Your task to perform on an android device: turn off picture-in-picture Image 0: 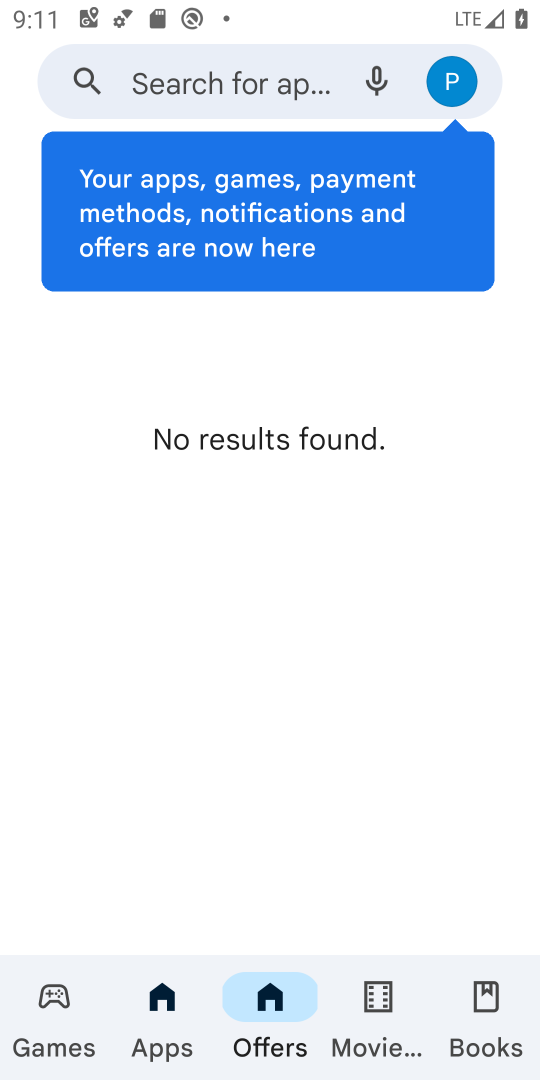
Step 0: press home button
Your task to perform on an android device: turn off picture-in-picture Image 1: 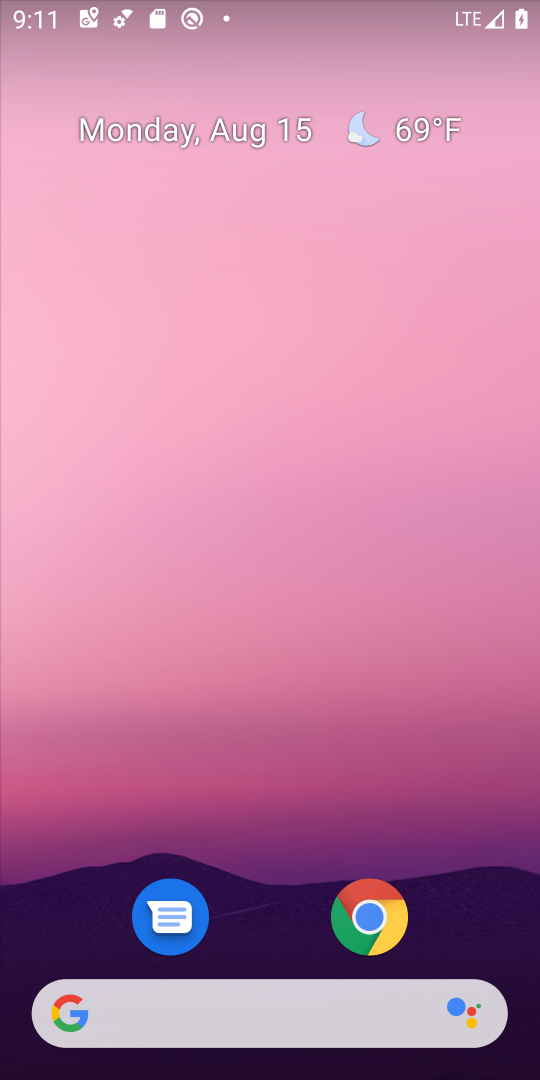
Step 1: click (363, 914)
Your task to perform on an android device: turn off picture-in-picture Image 2: 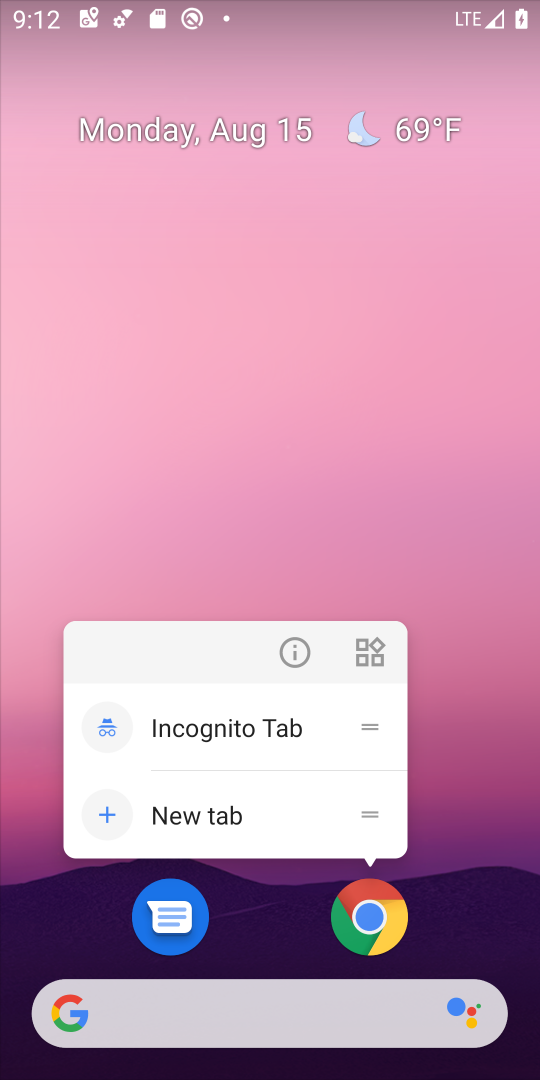
Step 2: click (297, 643)
Your task to perform on an android device: turn off picture-in-picture Image 3: 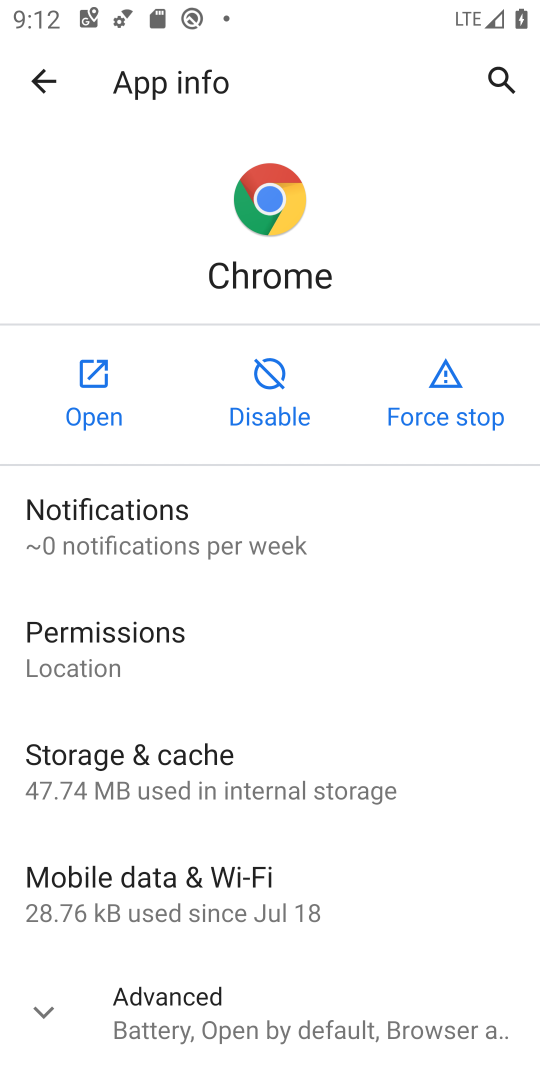
Step 3: click (43, 1010)
Your task to perform on an android device: turn off picture-in-picture Image 4: 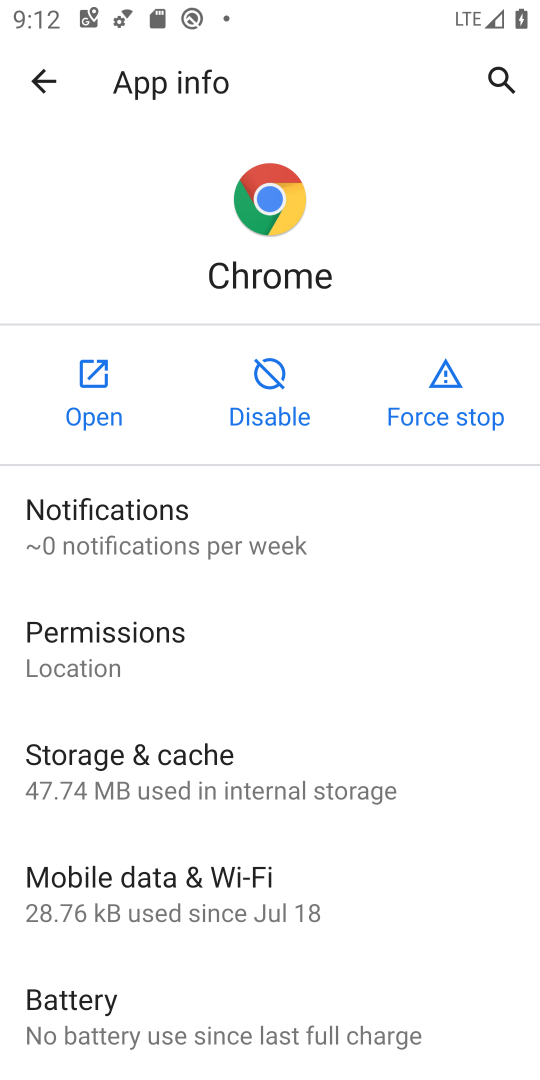
Step 4: drag from (395, 895) to (412, 198)
Your task to perform on an android device: turn off picture-in-picture Image 5: 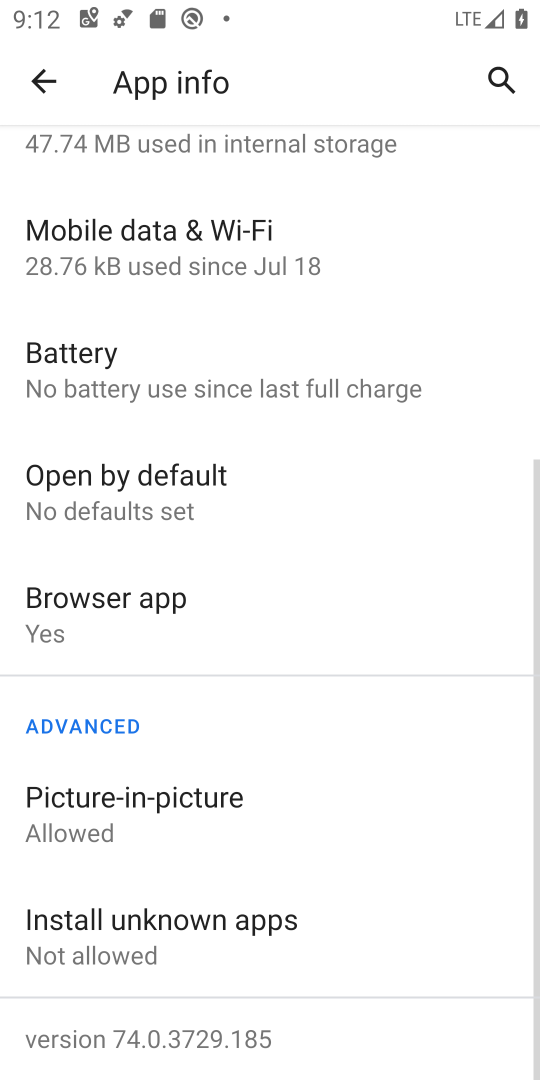
Step 5: drag from (197, 873) to (156, 454)
Your task to perform on an android device: turn off picture-in-picture Image 6: 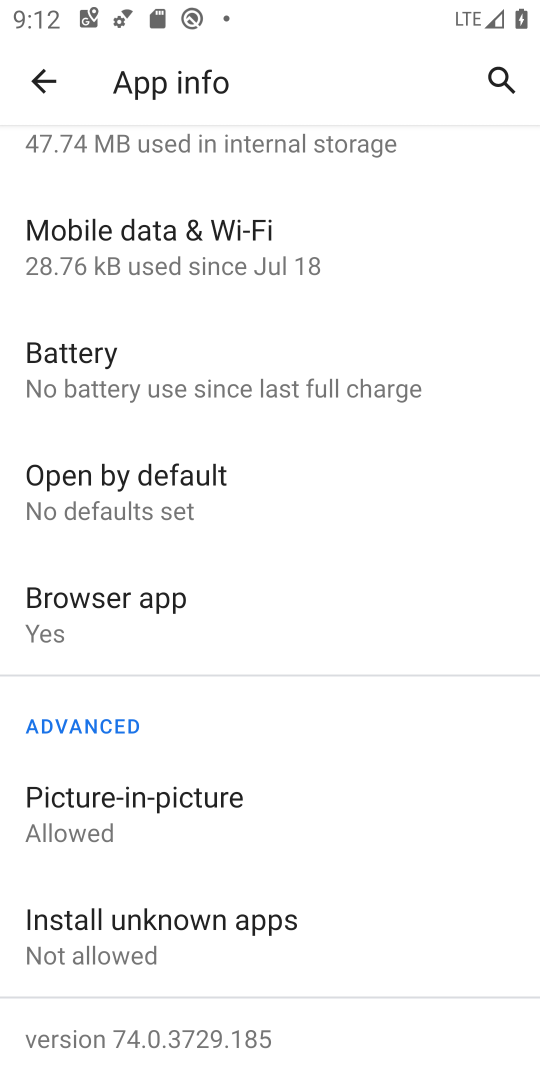
Step 6: click (222, 808)
Your task to perform on an android device: turn off picture-in-picture Image 7: 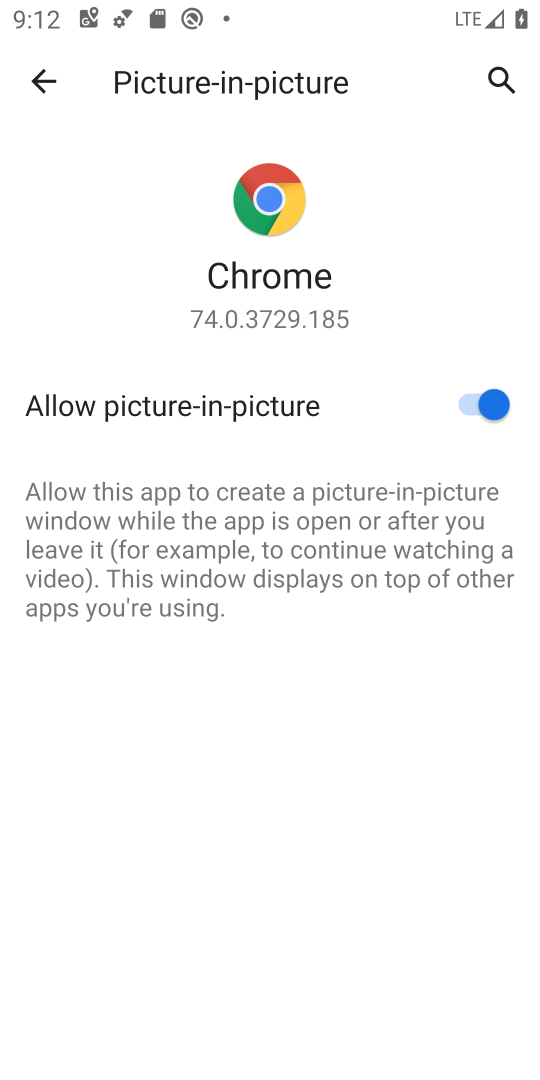
Step 7: click (475, 399)
Your task to perform on an android device: turn off picture-in-picture Image 8: 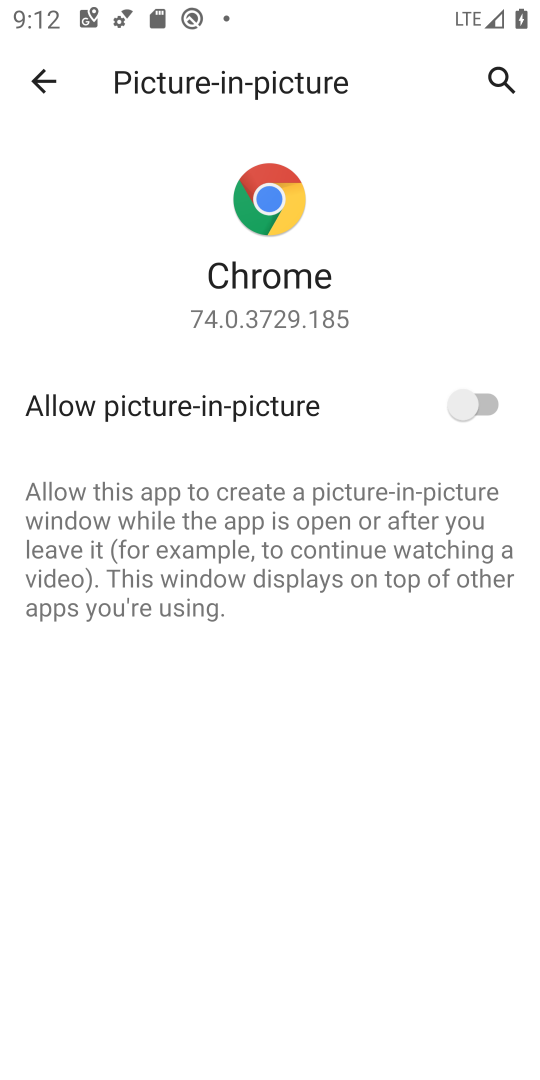
Step 8: task complete